Your task to perform on an android device: Show me productivity apps on the Play Store Image 0: 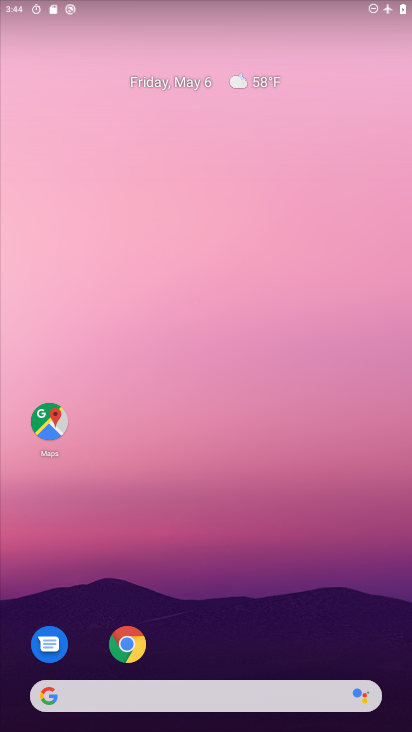
Step 0: drag from (199, 729) to (172, 175)
Your task to perform on an android device: Show me productivity apps on the Play Store Image 1: 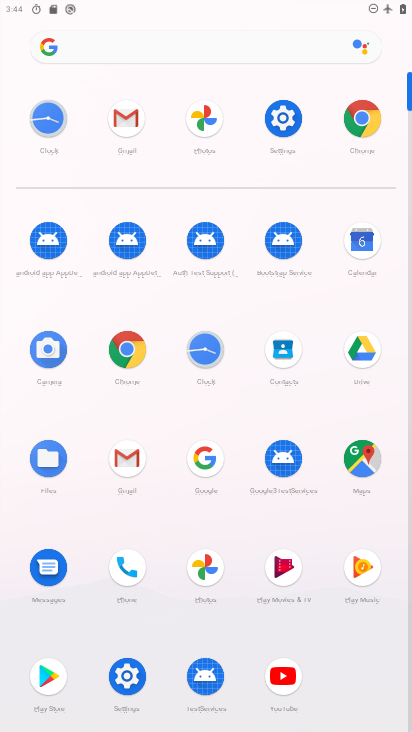
Step 1: click (42, 673)
Your task to perform on an android device: Show me productivity apps on the Play Store Image 2: 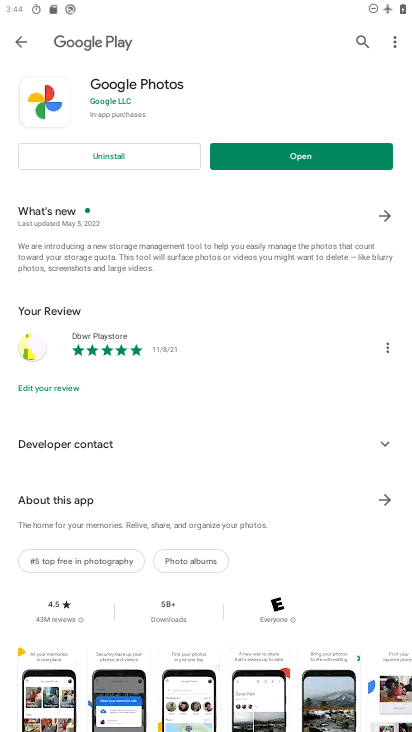
Step 2: click (25, 36)
Your task to perform on an android device: Show me productivity apps on the Play Store Image 3: 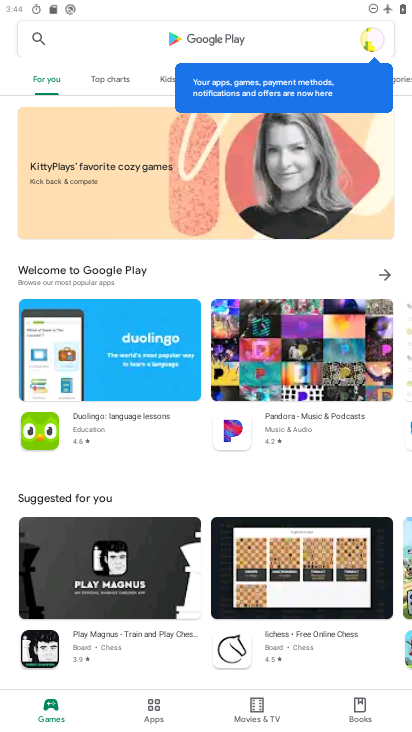
Step 3: click (155, 706)
Your task to perform on an android device: Show me productivity apps on the Play Store Image 4: 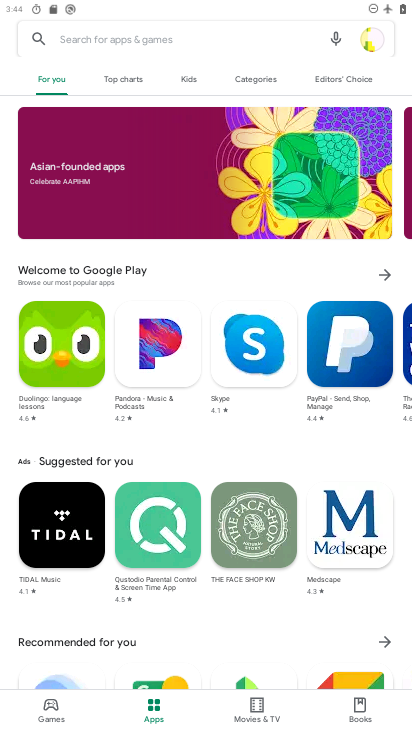
Step 4: click (250, 75)
Your task to perform on an android device: Show me productivity apps on the Play Store Image 5: 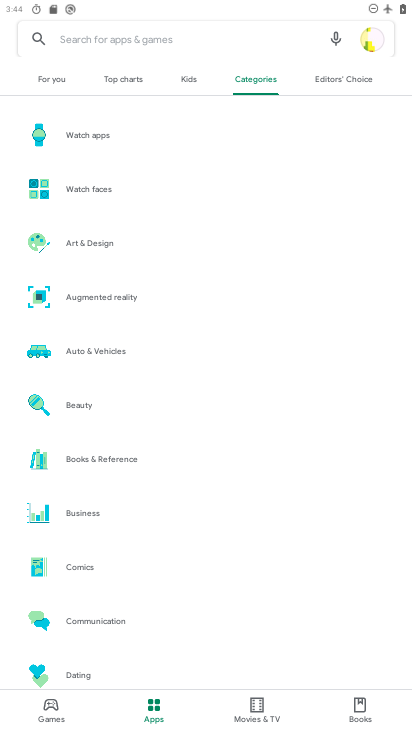
Step 5: drag from (100, 648) to (97, 323)
Your task to perform on an android device: Show me productivity apps on the Play Store Image 6: 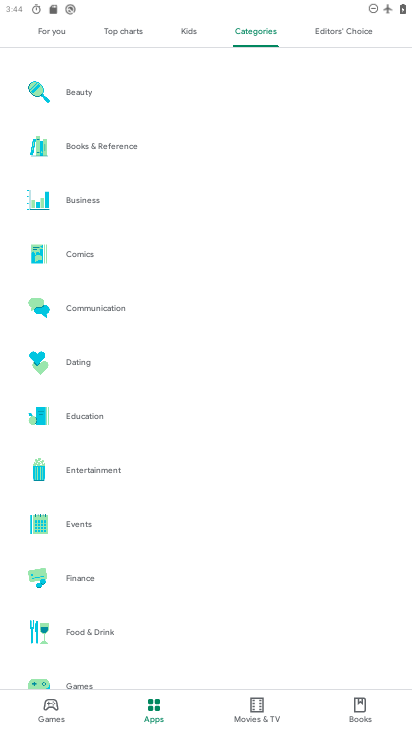
Step 6: drag from (131, 659) to (133, 392)
Your task to perform on an android device: Show me productivity apps on the Play Store Image 7: 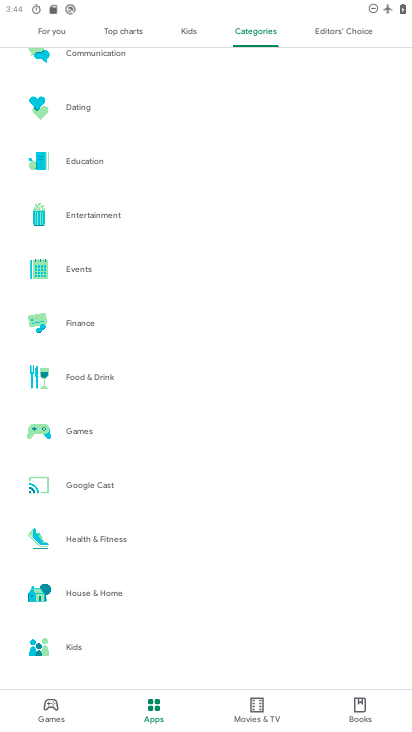
Step 7: drag from (111, 635) to (118, 374)
Your task to perform on an android device: Show me productivity apps on the Play Store Image 8: 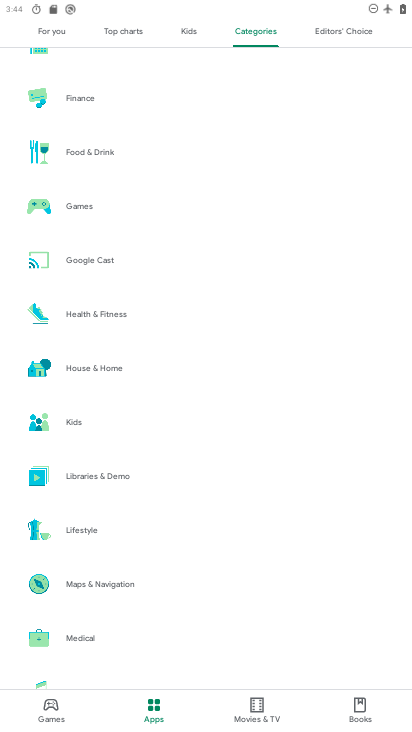
Step 8: drag from (173, 654) to (183, 469)
Your task to perform on an android device: Show me productivity apps on the Play Store Image 9: 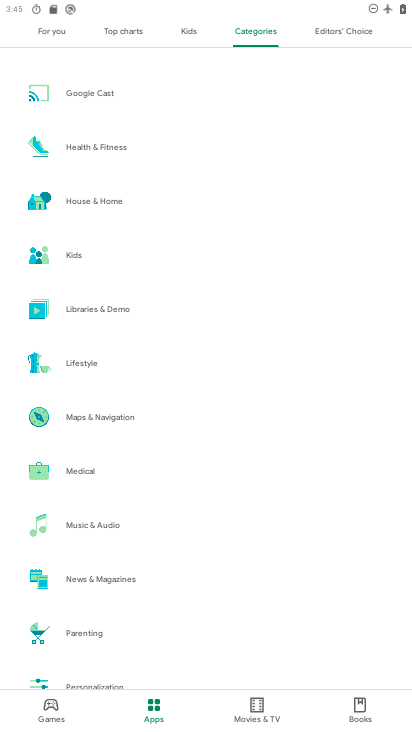
Step 9: drag from (153, 674) to (179, 343)
Your task to perform on an android device: Show me productivity apps on the Play Store Image 10: 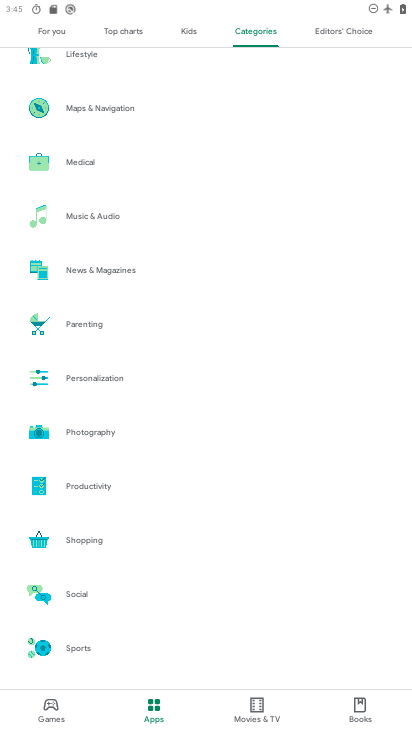
Step 10: click (104, 484)
Your task to perform on an android device: Show me productivity apps on the Play Store Image 11: 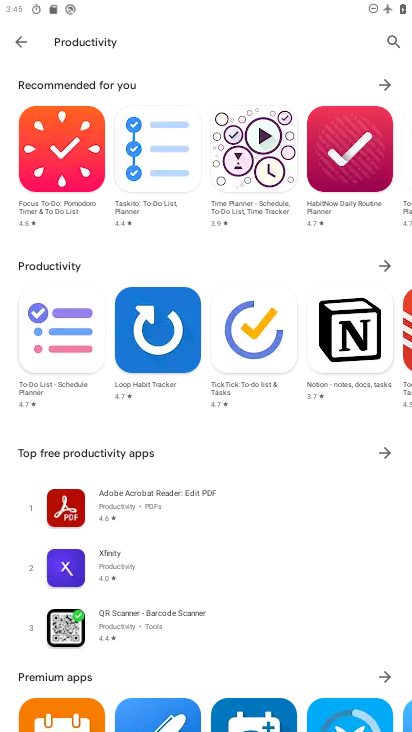
Step 11: task complete